Your task to perform on an android device: toggle javascript in the chrome app Image 0: 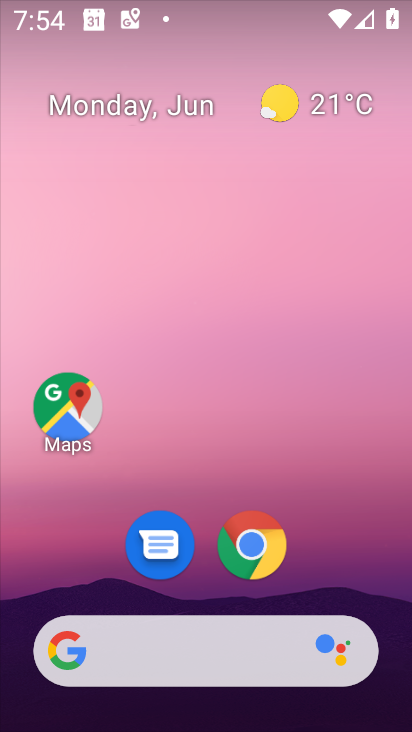
Step 0: click (254, 539)
Your task to perform on an android device: toggle javascript in the chrome app Image 1: 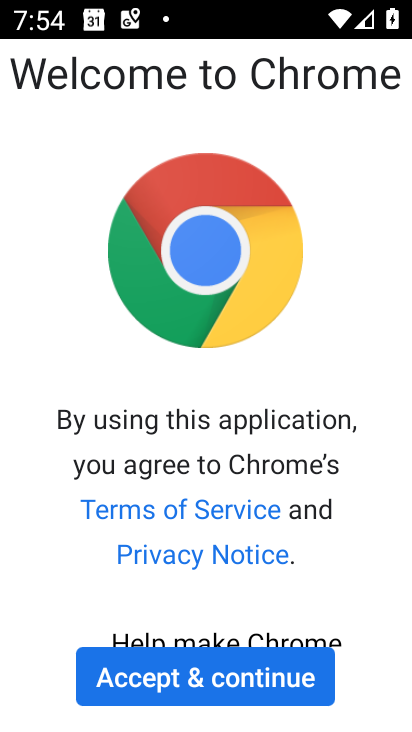
Step 1: click (234, 671)
Your task to perform on an android device: toggle javascript in the chrome app Image 2: 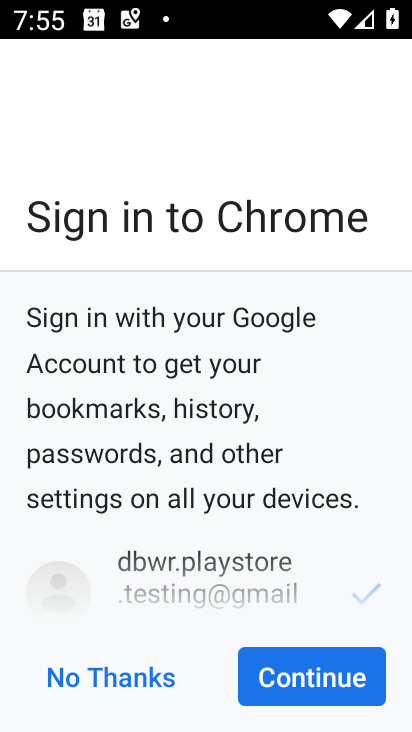
Step 2: click (303, 661)
Your task to perform on an android device: toggle javascript in the chrome app Image 3: 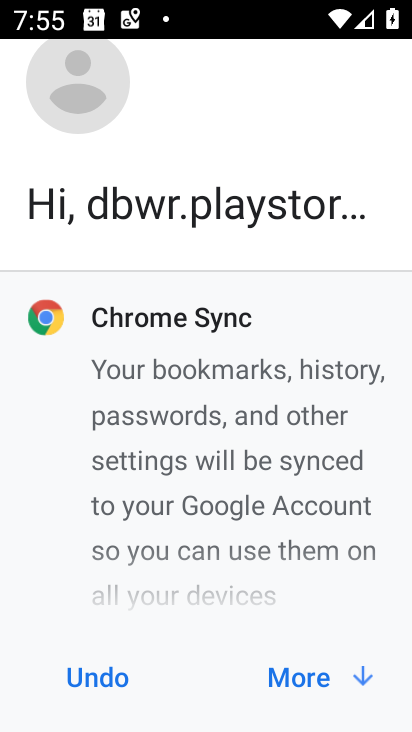
Step 3: click (302, 660)
Your task to perform on an android device: toggle javascript in the chrome app Image 4: 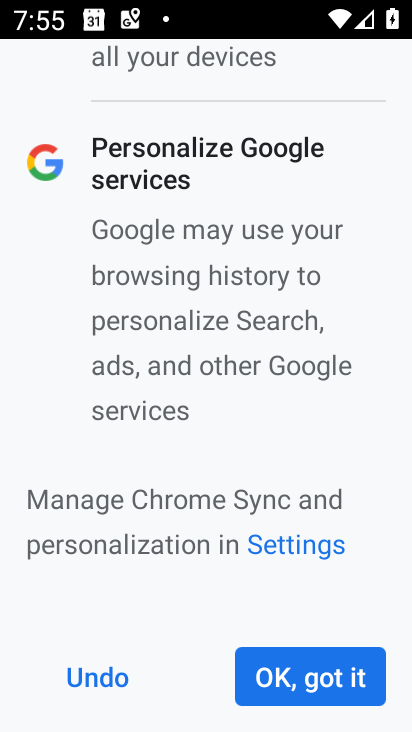
Step 4: click (301, 659)
Your task to perform on an android device: toggle javascript in the chrome app Image 5: 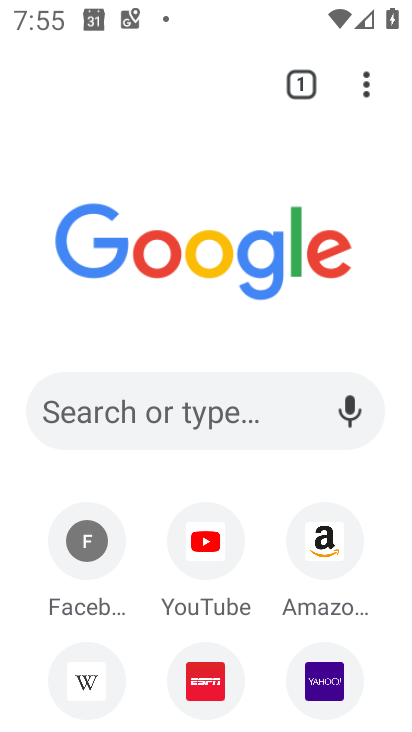
Step 5: drag from (363, 74) to (133, 597)
Your task to perform on an android device: toggle javascript in the chrome app Image 6: 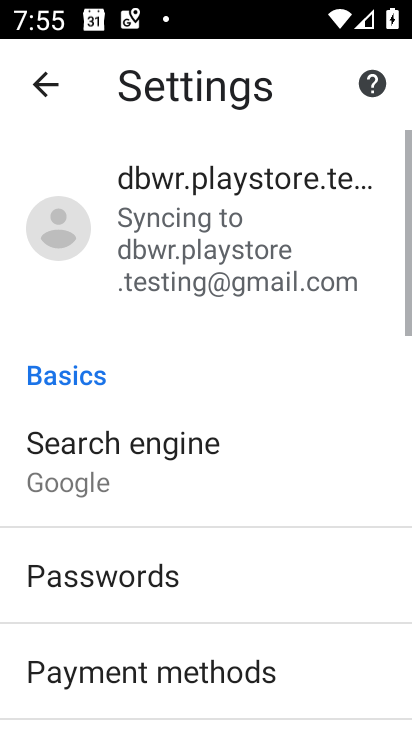
Step 6: drag from (131, 574) to (161, 96)
Your task to perform on an android device: toggle javascript in the chrome app Image 7: 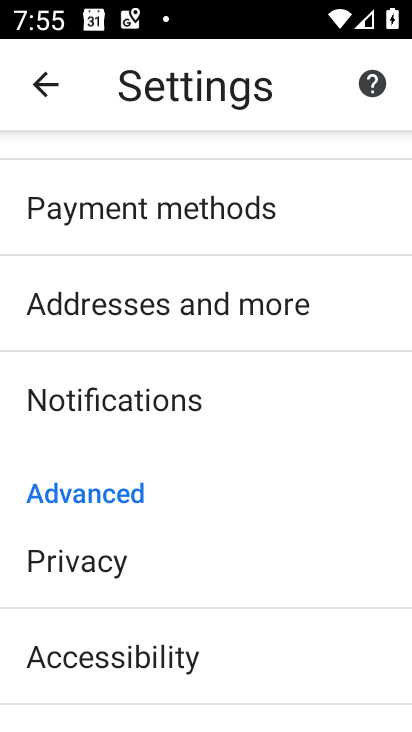
Step 7: drag from (130, 521) to (205, 143)
Your task to perform on an android device: toggle javascript in the chrome app Image 8: 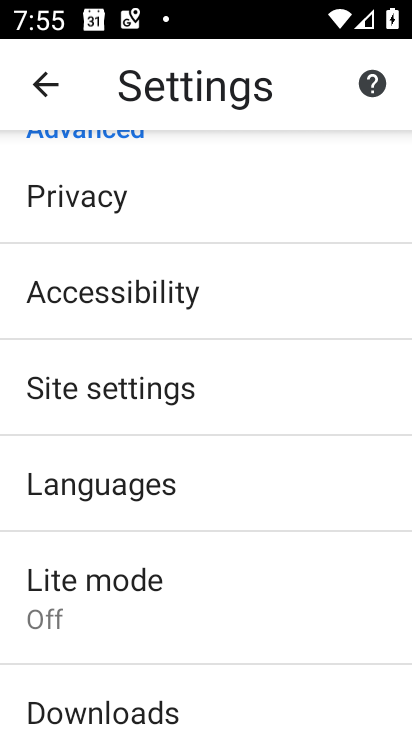
Step 8: click (154, 373)
Your task to perform on an android device: toggle javascript in the chrome app Image 9: 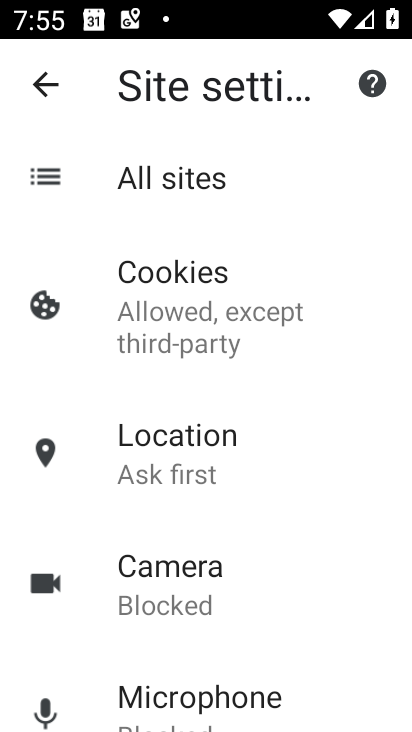
Step 9: drag from (182, 600) to (198, 182)
Your task to perform on an android device: toggle javascript in the chrome app Image 10: 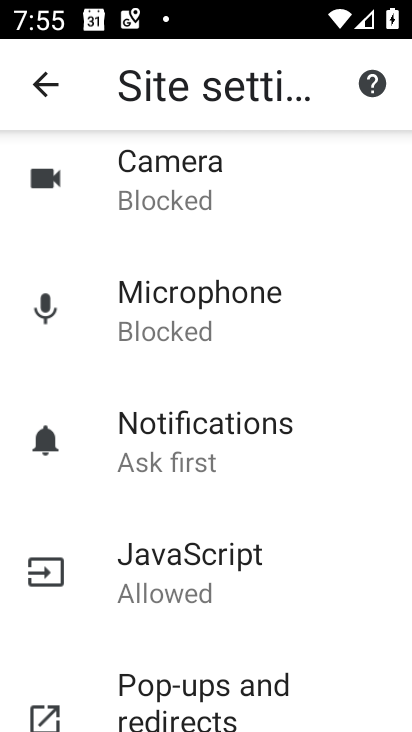
Step 10: click (128, 578)
Your task to perform on an android device: toggle javascript in the chrome app Image 11: 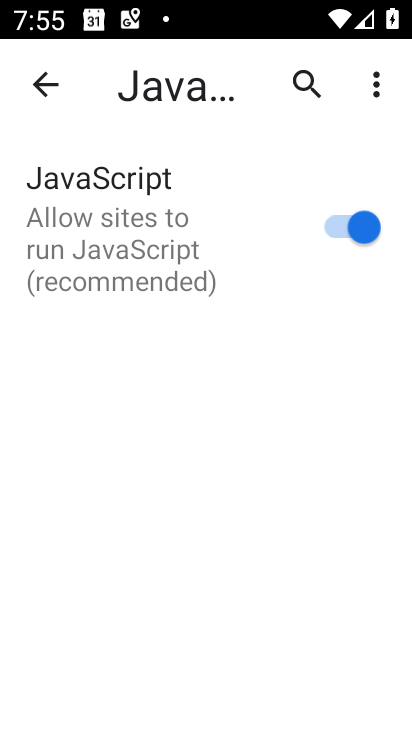
Step 11: click (340, 246)
Your task to perform on an android device: toggle javascript in the chrome app Image 12: 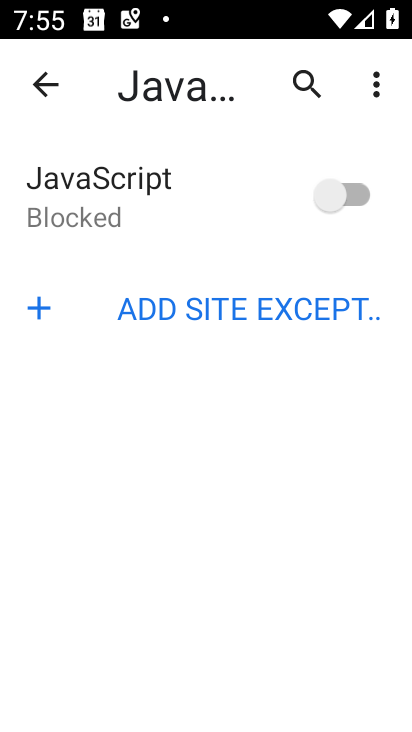
Step 12: task complete